Your task to perform on an android device: install app "YouTube Kids" Image 0: 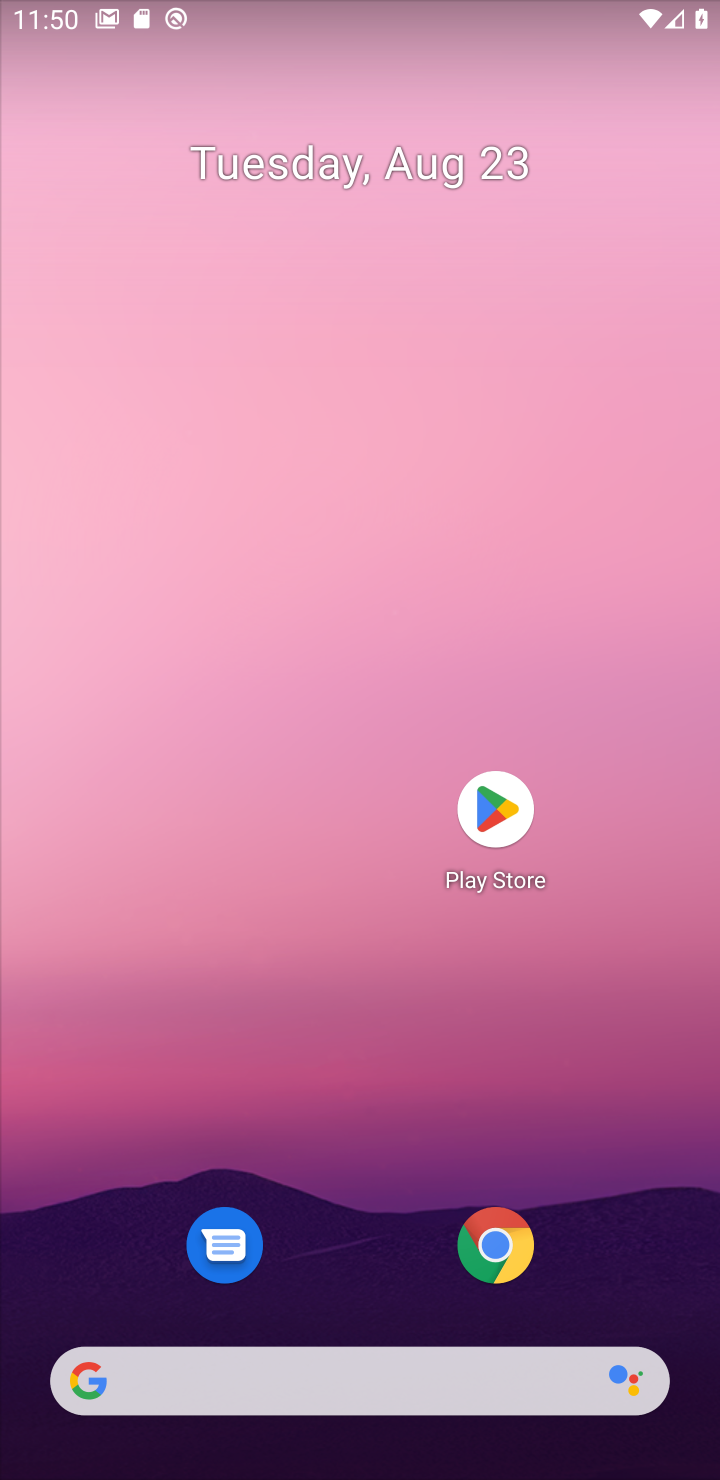
Step 0: click (503, 802)
Your task to perform on an android device: install app "YouTube Kids" Image 1: 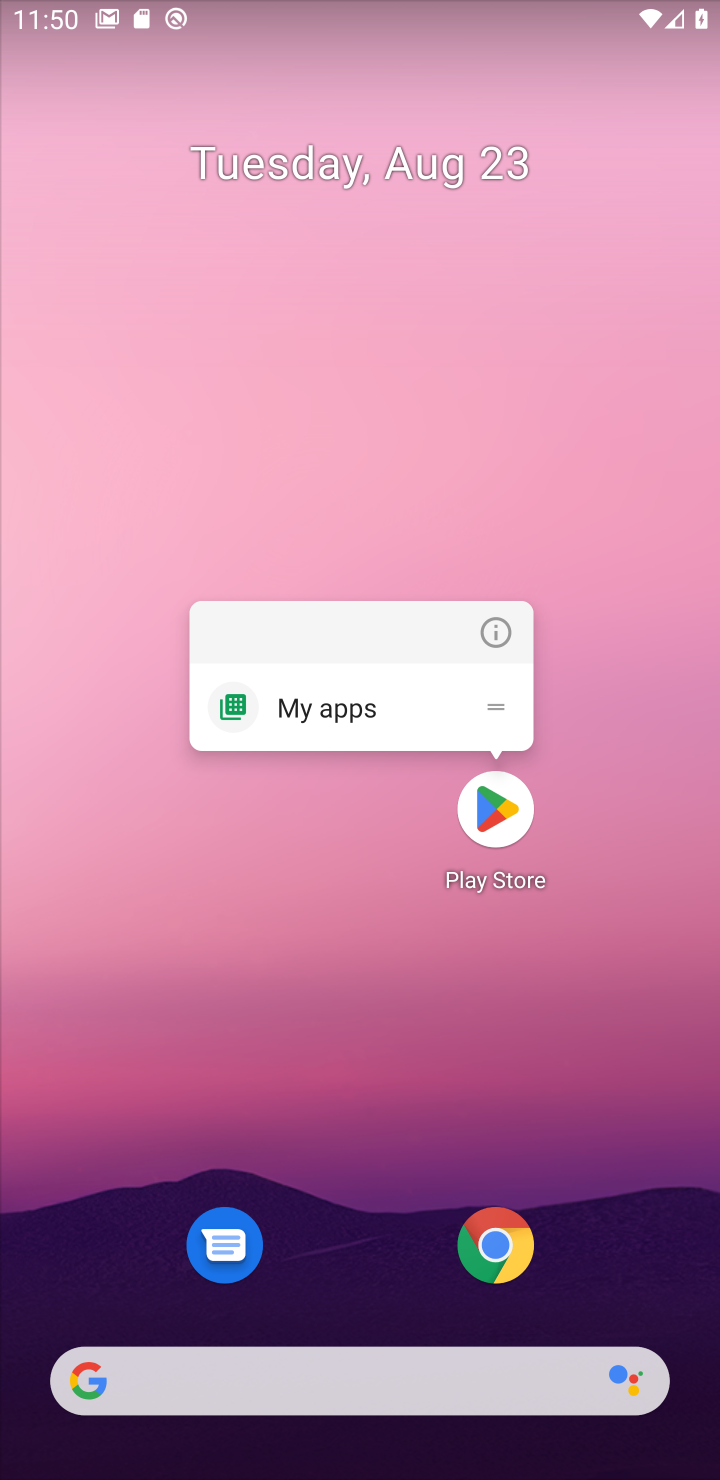
Step 1: click (503, 818)
Your task to perform on an android device: install app "YouTube Kids" Image 2: 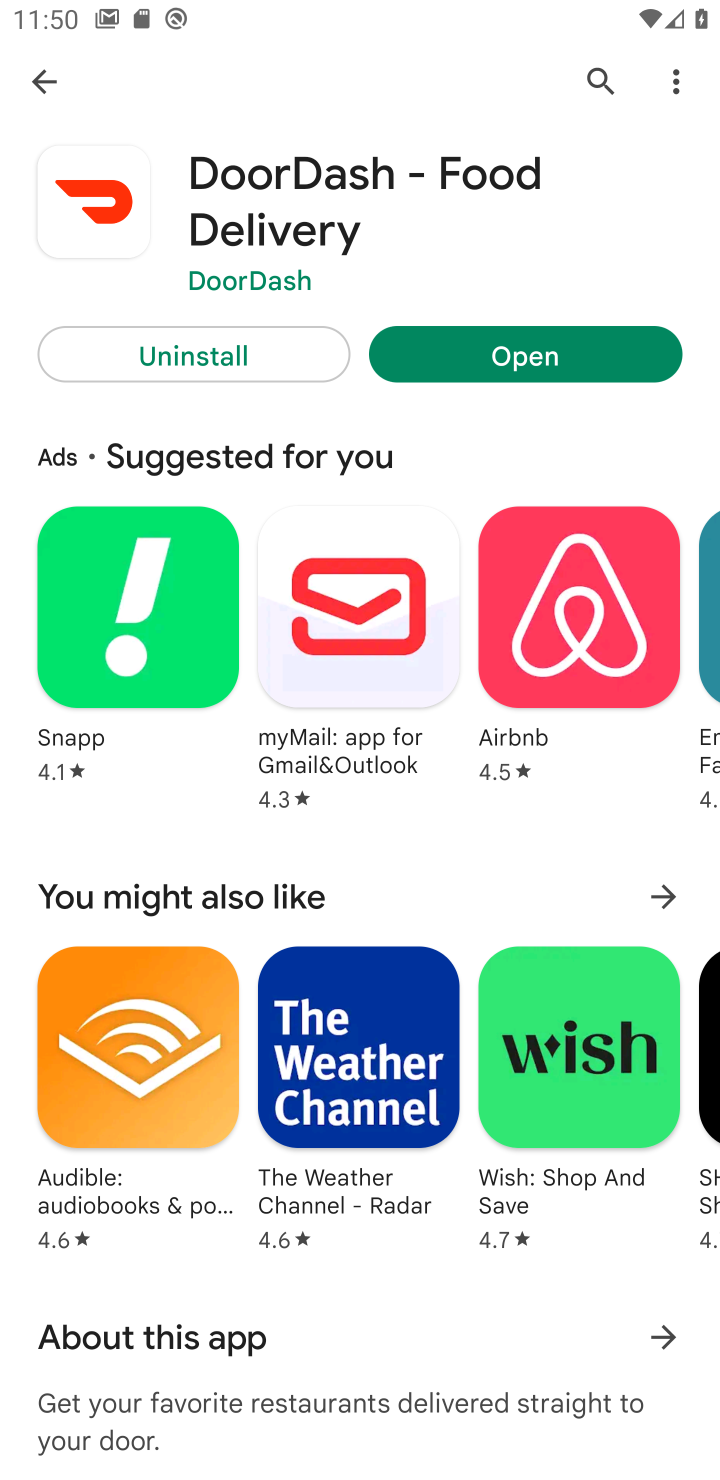
Step 2: click (601, 67)
Your task to perform on an android device: install app "YouTube Kids" Image 3: 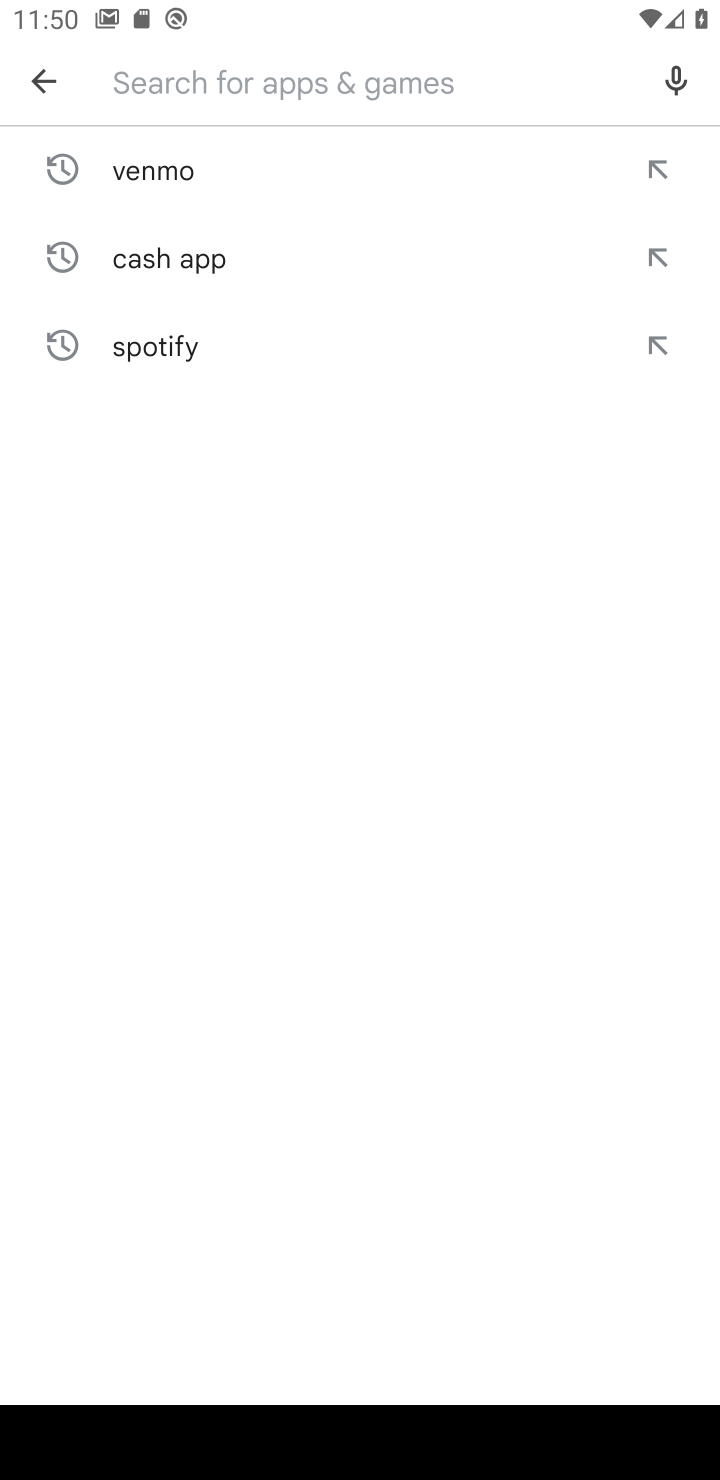
Step 3: type "YouTube Kids"
Your task to perform on an android device: install app "YouTube Kids" Image 4: 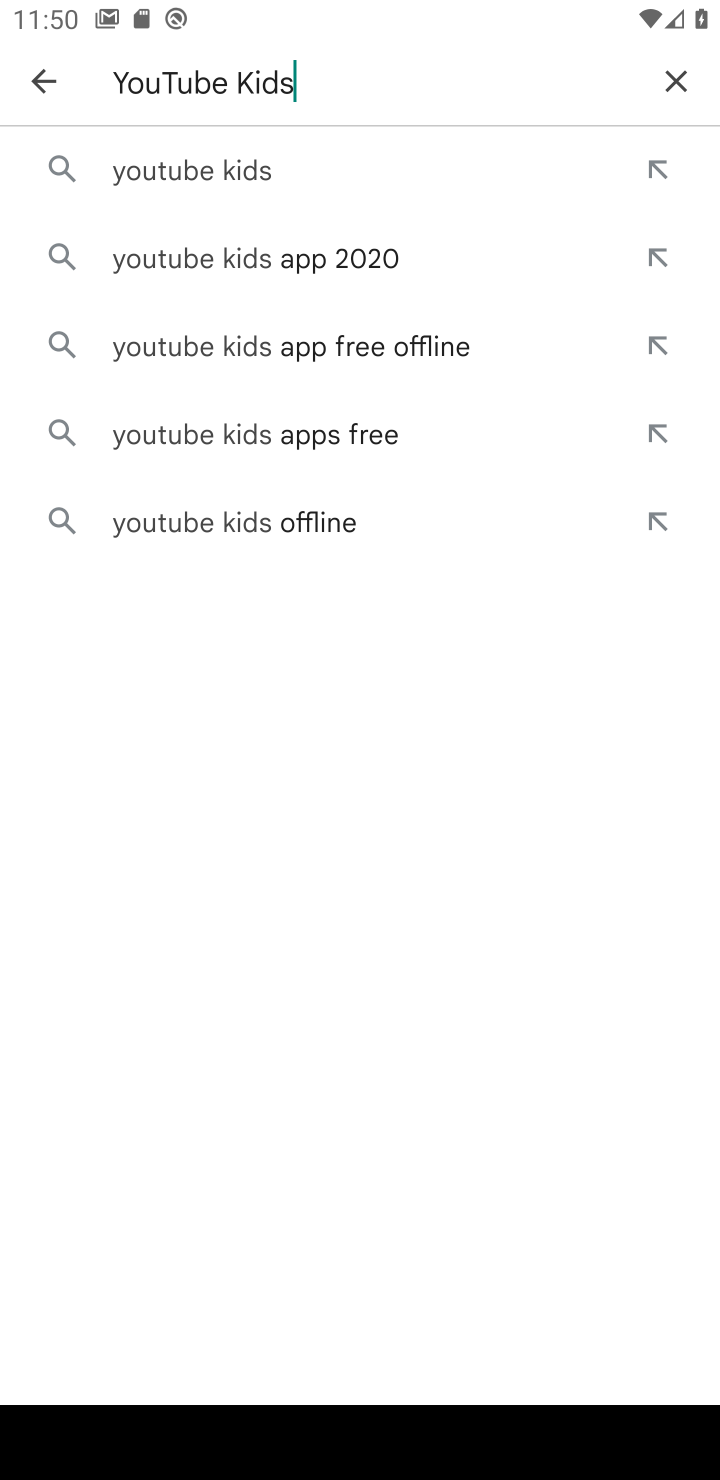
Step 4: click (234, 165)
Your task to perform on an android device: install app "YouTube Kids" Image 5: 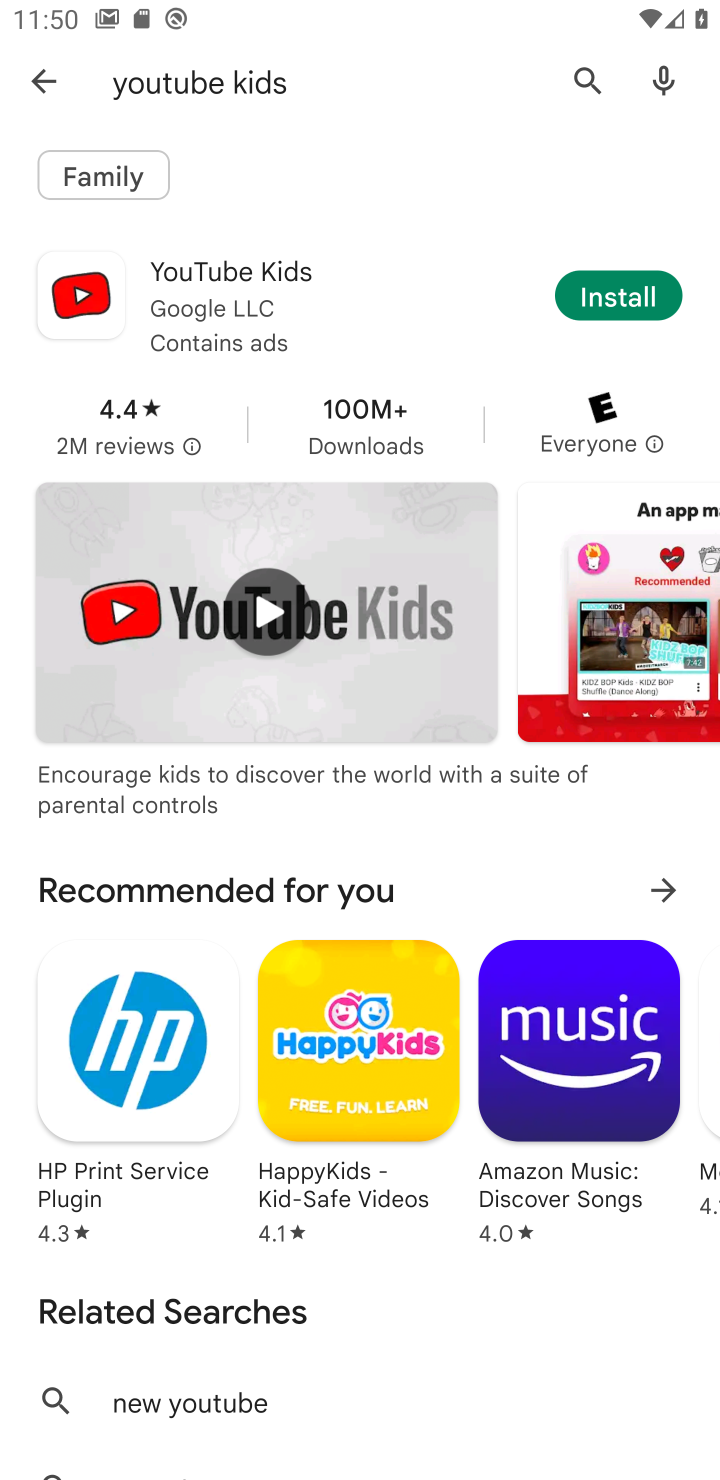
Step 5: click (632, 287)
Your task to perform on an android device: install app "YouTube Kids" Image 6: 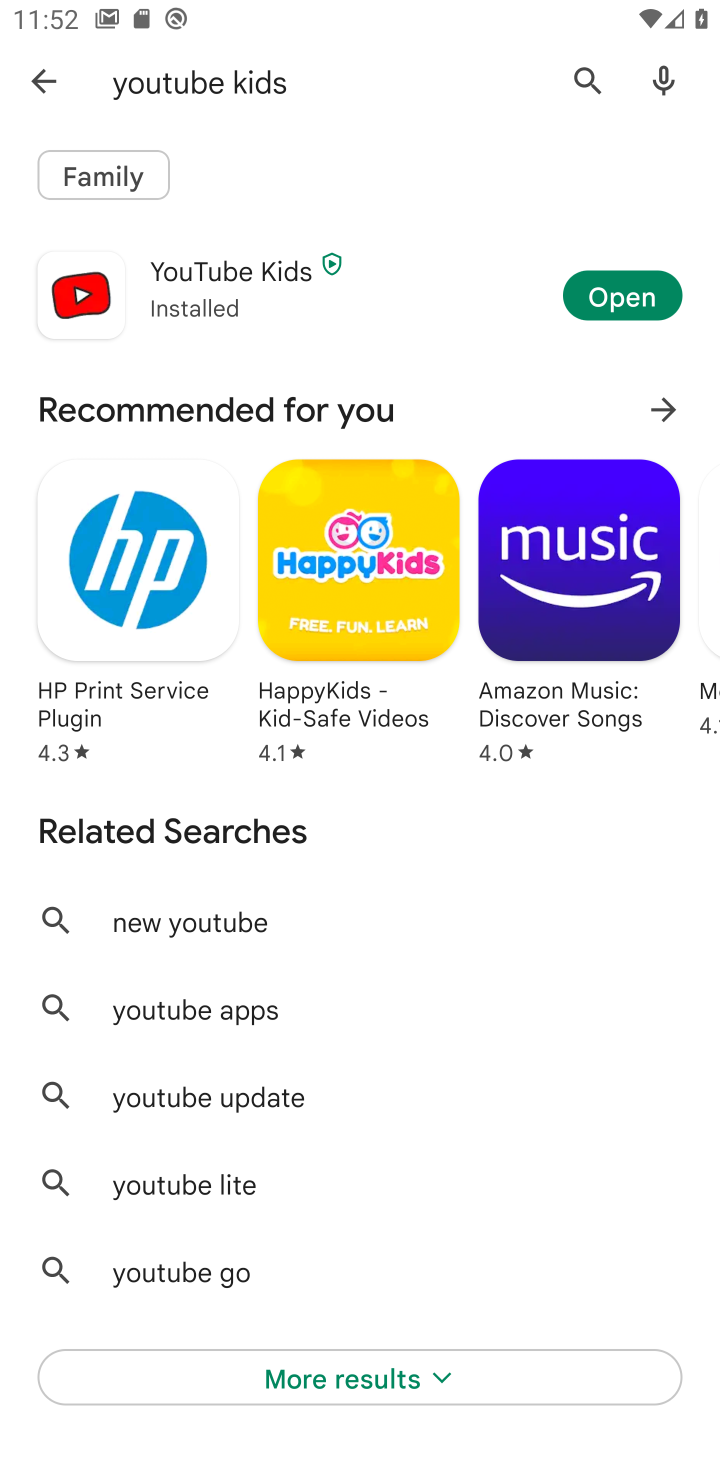
Step 6: task complete